Your task to perform on an android device: What is the news today? Image 0: 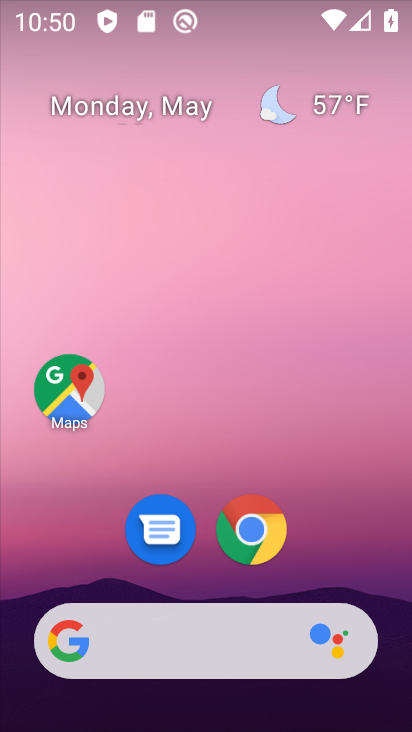
Step 0: drag from (7, 263) to (338, 244)
Your task to perform on an android device: What is the news today? Image 1: 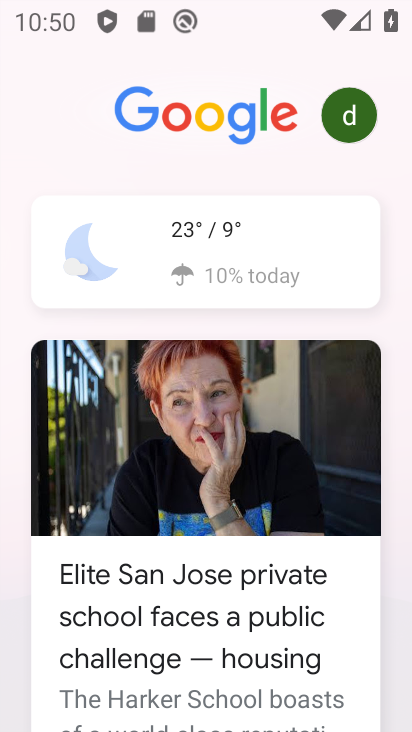
Step 1: task complete